Your task to perform on an android device: change the clock display to digital Image 0: 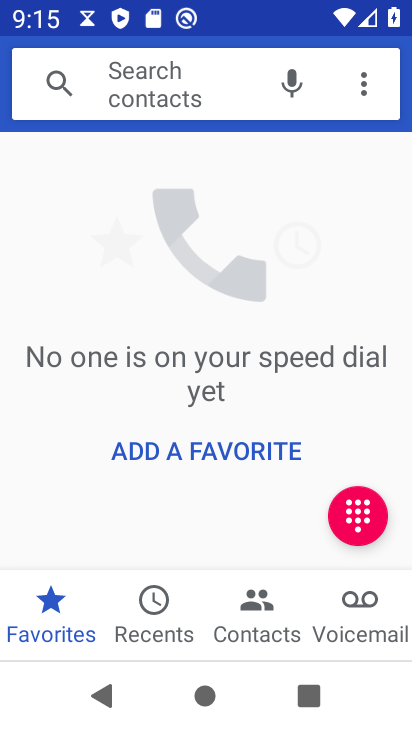
Step 0: press home button
Your task to perform on an android device: change the clock display to digital Image 1: 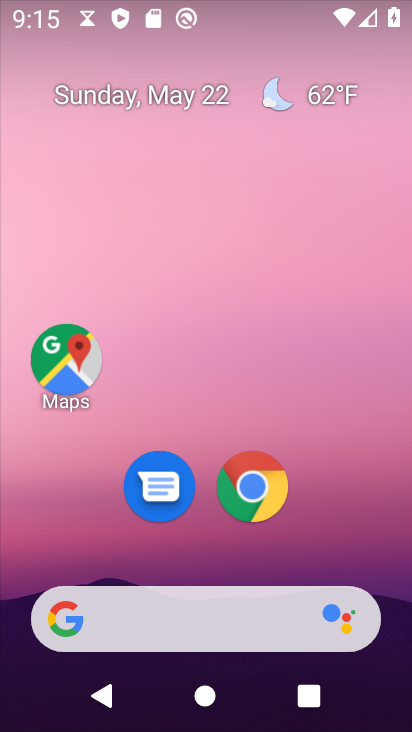
Step 1: drag from (210, 565) to (210, 20)
Your task to perform on an android device: change the clock display to digital Image 2: 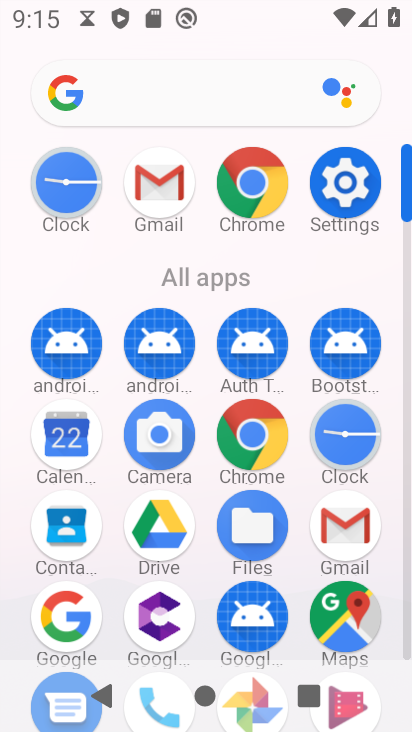
Step 2: click (66, 171)
Your task to perform on an android device: change the clock display to digital Image 3: 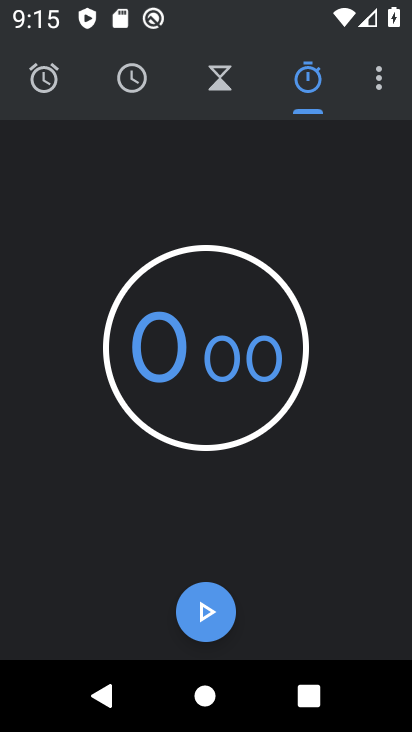
Step 3: click (376, 73)
Your task to perform on an android device: change the clock display to digital Image 4: 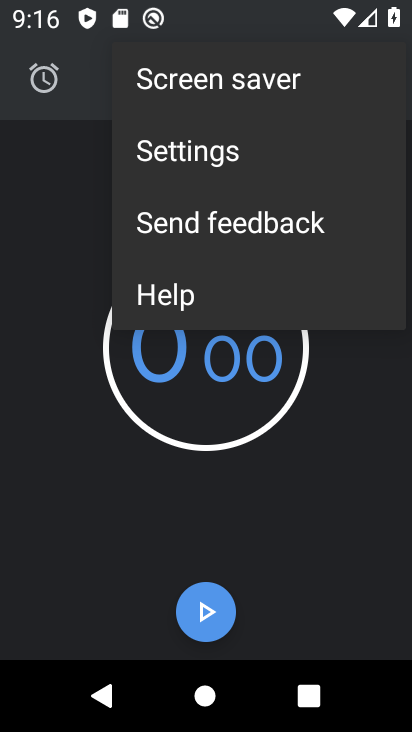
Step 4: click (257, 152)
Your task to perform on an android device: change the clock display to digital Image 5: 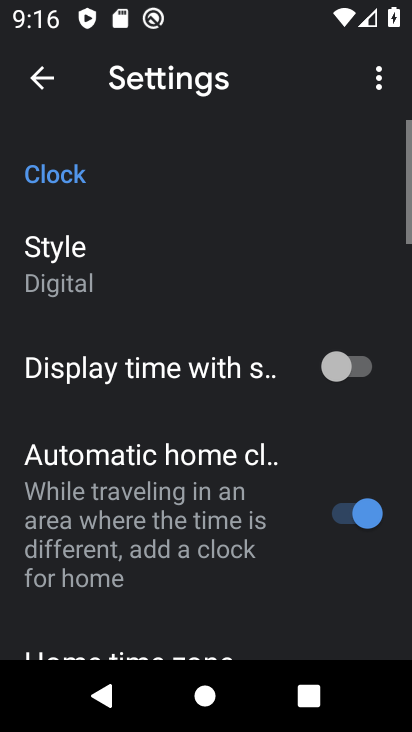
Step 5: click (121, 279)
Your task to perform on an android device: change the clock display to digital Image 6: 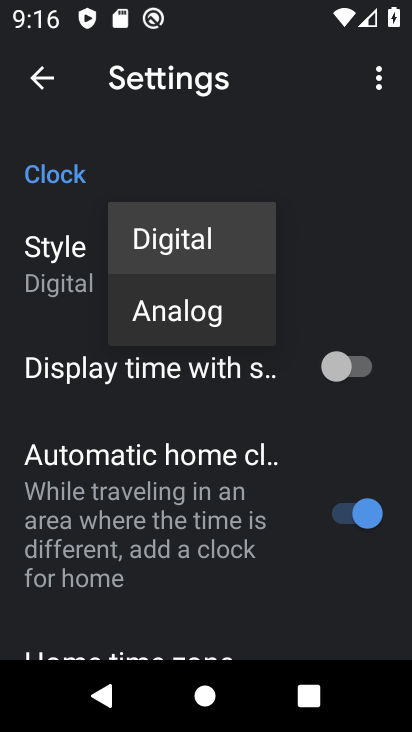
Step 6: click (174, 241)
Your task to perform on an android device: change the clock display to digital Image 7: 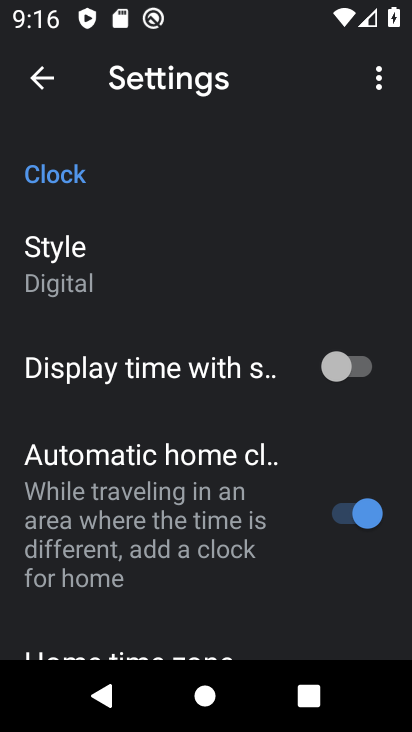
Step 7: task complete